Your task to perform on an android device: empty trash in the gmail app Image 0: 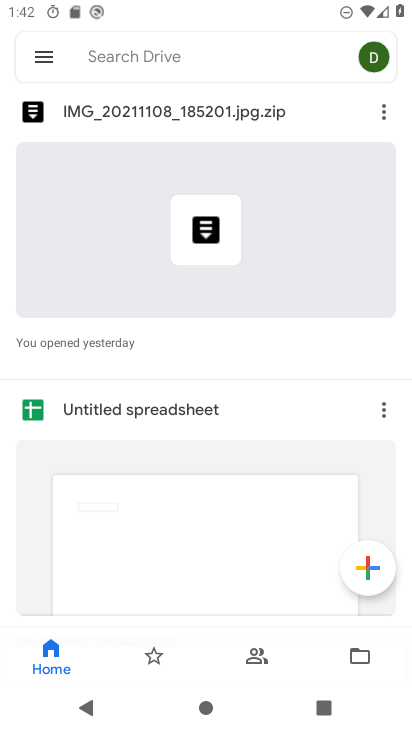
Step 0: press home button
Your task to perform on an android device: empty trash in the gmail app Image 1: 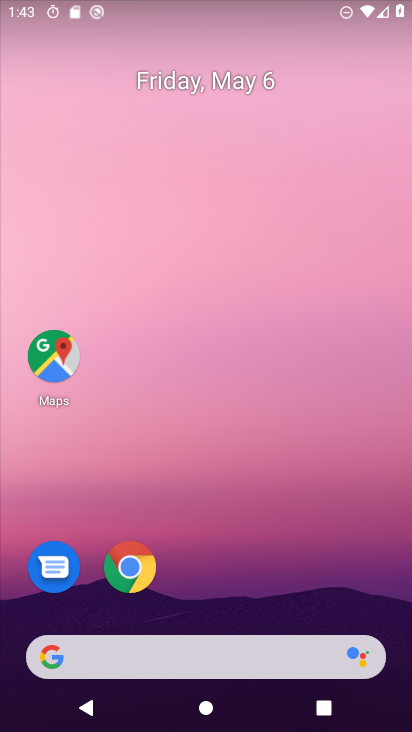
Step 1: drag from (323, 614) to (349, 14)
Your task to perform on an android device: empty trash in the gmail app Image 2: 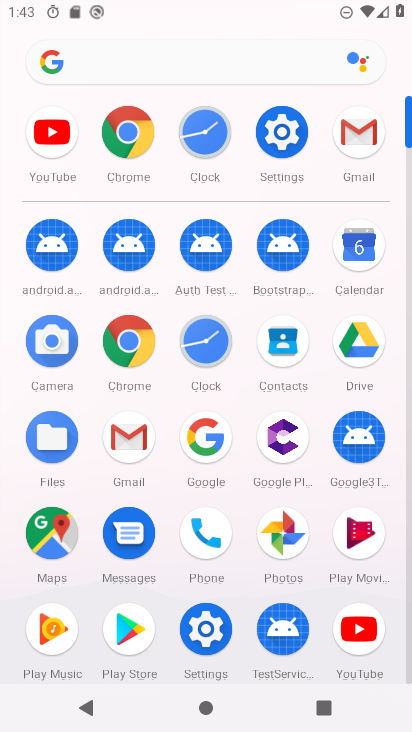
Step 2: click (362, 140)
Your task to perform on an android device: empty trash in the gmail app Image 3: 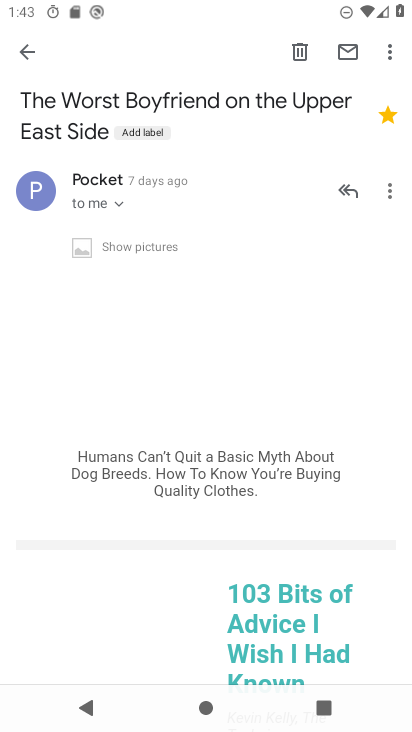
Step 3: click (30, 55)
Your task to perform on an android device: empty trash in the gmail app Image 4: 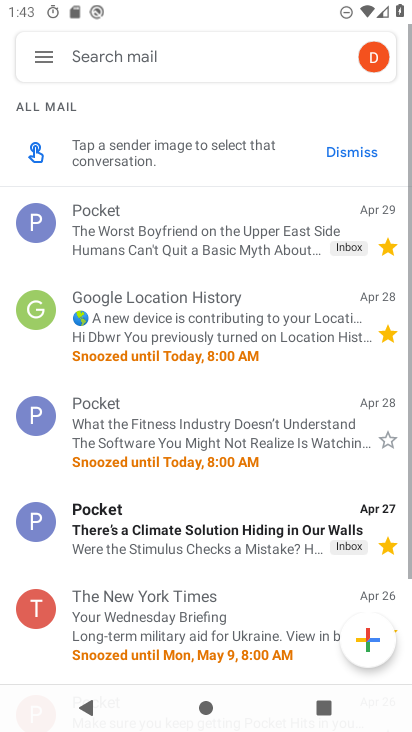
Step 4: click (30, 55)
Your task to perform on an android device: empty trash in the gmail app Image 5: 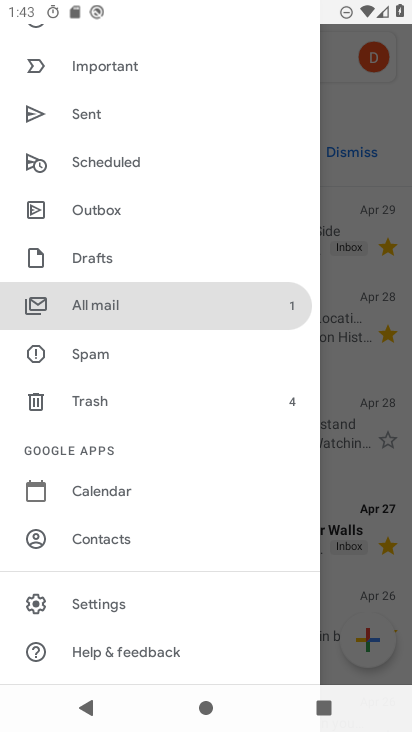
Step 5: click (94, 394)
Your task to perform on an android device: empty trash in the gmail app Image 6: 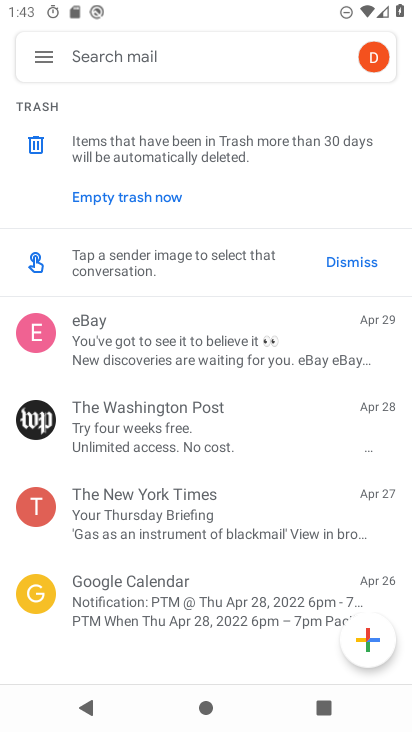
Step 6: click (108, 194)
Your task to perform on an android device: empty trash in the gmail app Image 7: 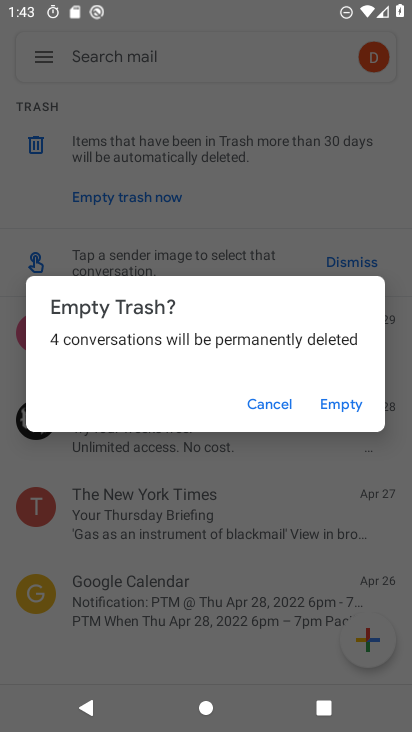
Step 7: click (344, 408)
Your task to perform on an android device: empty trash in the gmail app Image 8: 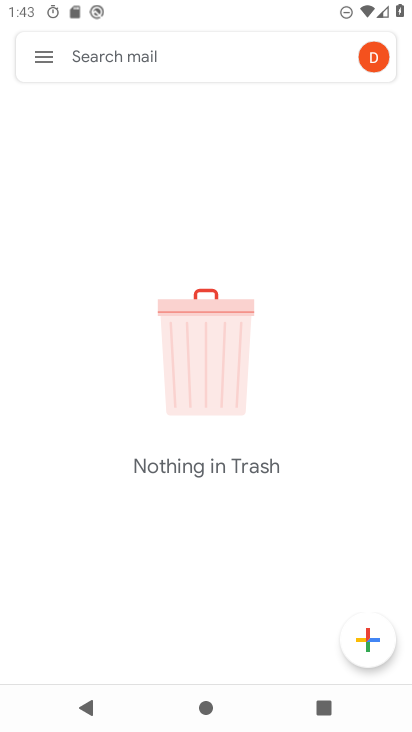
Step 8: task complete